Your task to perform on an android device: empty trash in the gmail app Image 0: 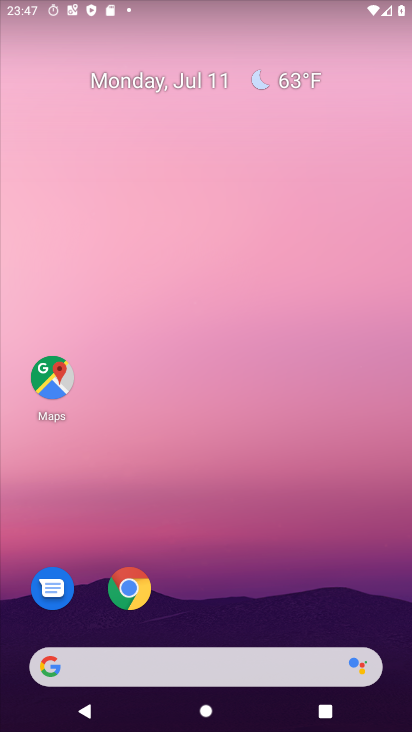
Step 0: drag from (247, 700) to (239, 106)
Your task to perform on an android device: empty trash in the gmail app Image 1: 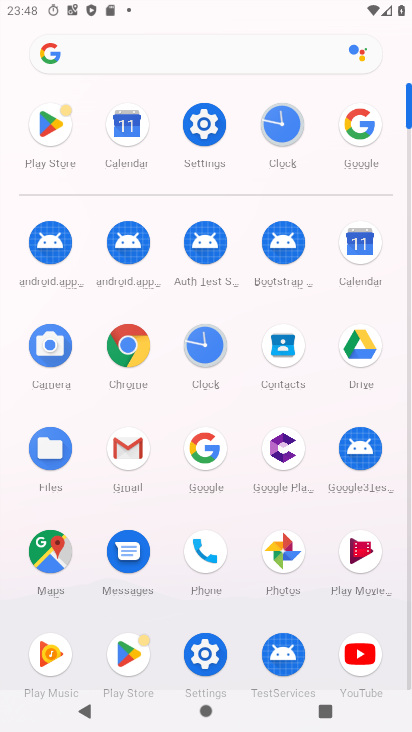
Step 1: click (124, 450)
Your task to perform on an android device: empty trash in the gmail app Image 2: 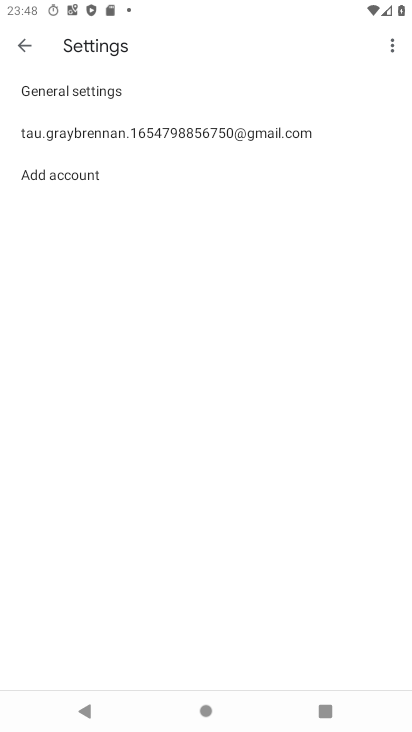
Step 2: click (24, 37)
Your task to perform on an android device: empty trash in the gmail app Image 3: 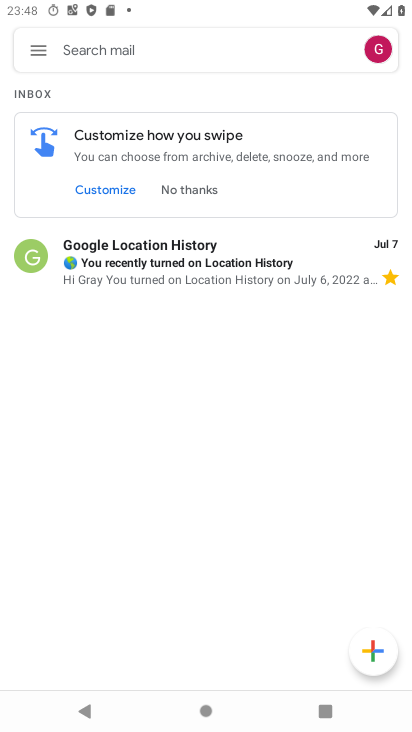
Step 3: click (38, 47)
Your task to perform on an android device: empty trash in the gmail app Image 4: 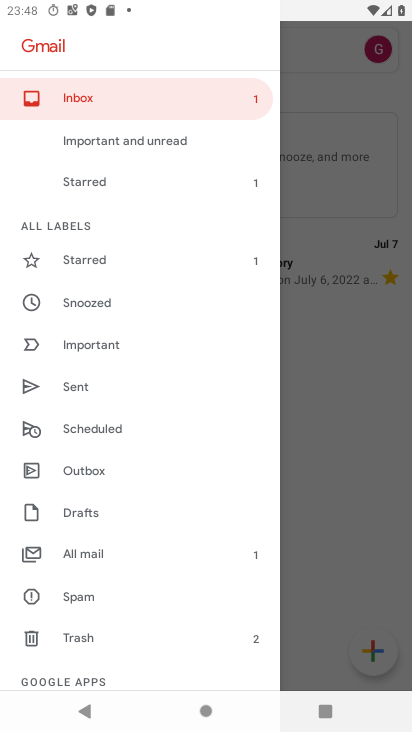
Step 4: click (82, 635)
Your task to perform on an android device: empty trash in the gmail app Image 5: 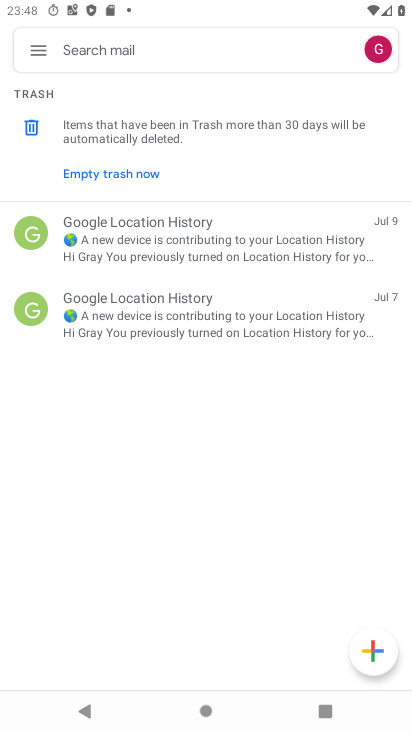
Step 5: click (110, 172)
Your task to perform on an android device: empty trash in the gmail app Image 6: 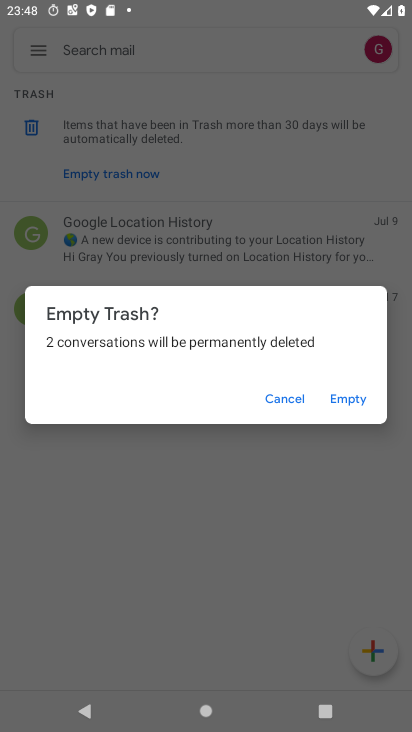
Step 6: click (343, 395)
Your task to perform on an android device: empty trash in the gmail app Image 7: 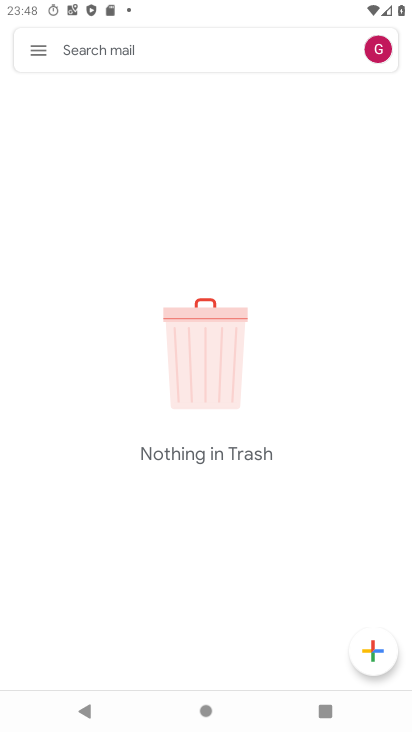
Step 7: task complete